Your task to perform on an android device: change the upload size in google photos Image 0: 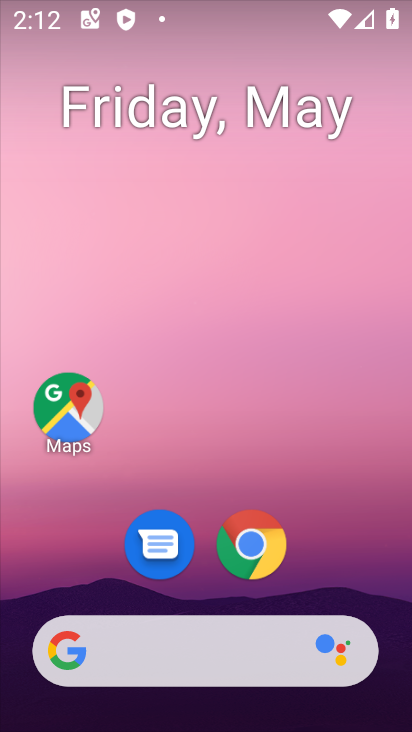
Step 0: drag from (209, 578) to (236, 198)
Your task to perform on an android device: change the upload size in google photos Image 1: 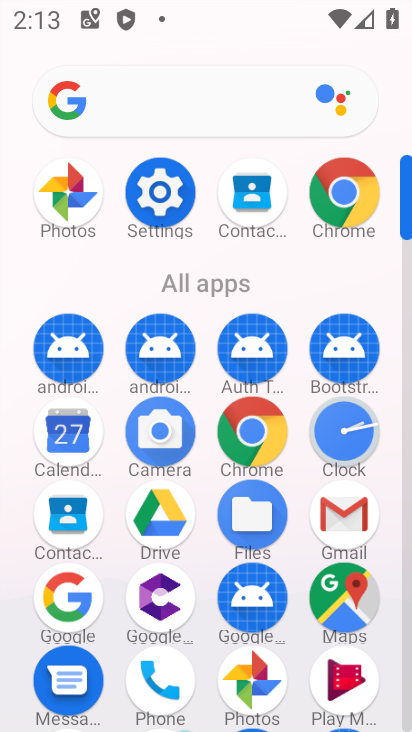
Step 1: click (81, 210)
Your task to perform on an android device: change the upload size in google photos Image 2: 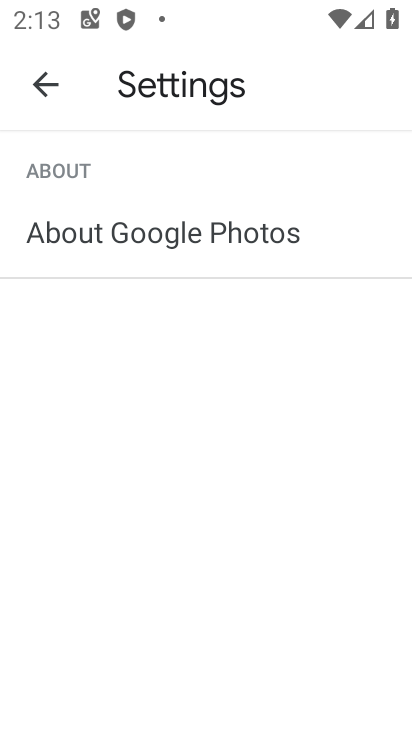
Step 2: click (22, 75)
Your task to perform on an android device: change the upload size in google photos Image 3: 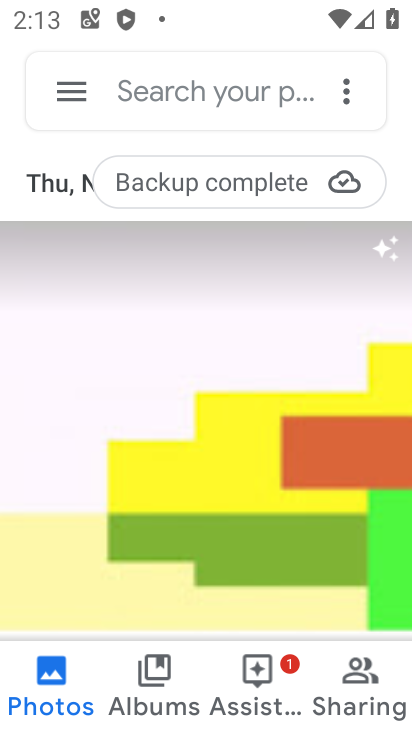
Step 3: click (52, 77)
Your task to perform on an android device: change the upload size in google photos Image 4: 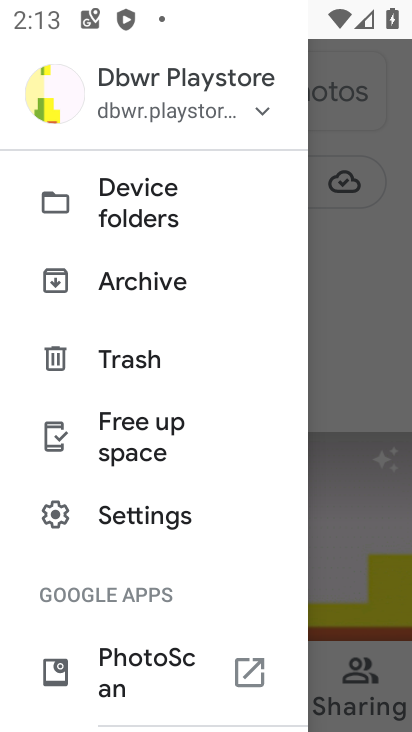
Step 4: drag from (132, 531) to (176, 243)
Your task to perform on an android device: change the upload size in google photos Image 5: 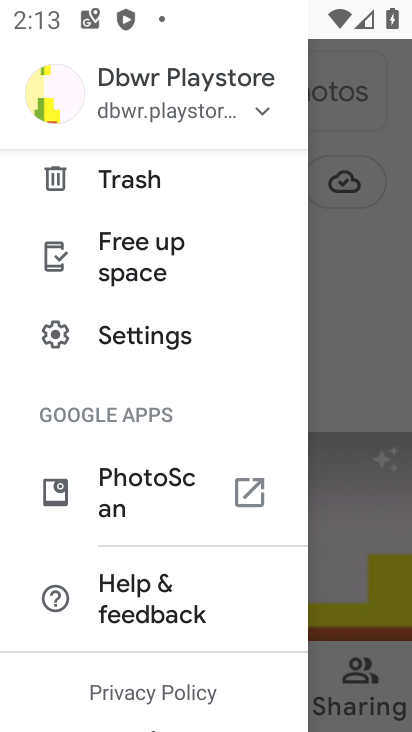
Step 5: click (159, 342)
Your task to perform on an android device: change the upload size in google photos Image 6: 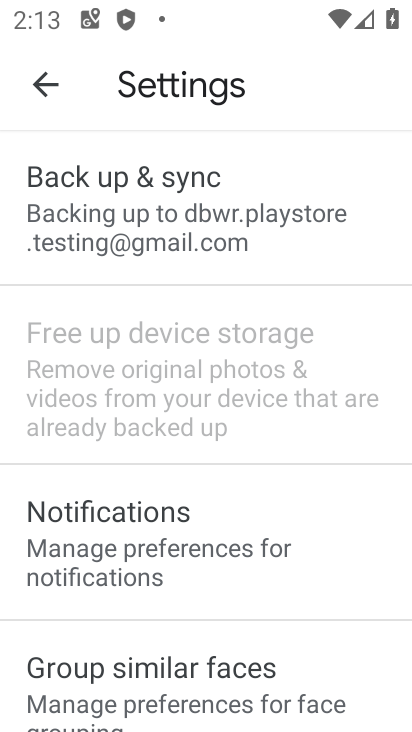
Step 6: drag from (204, 593) to (228, 305)
Your task to perform on an android device: change the upload size in google photos Image 7: 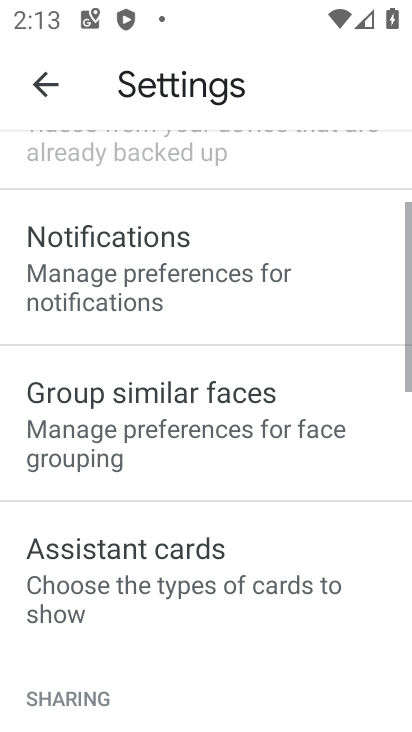
Step 7: drag from (220, 624) to (257, 274)
Your task to perform on an android device: change the upload size in google photos Image 8: 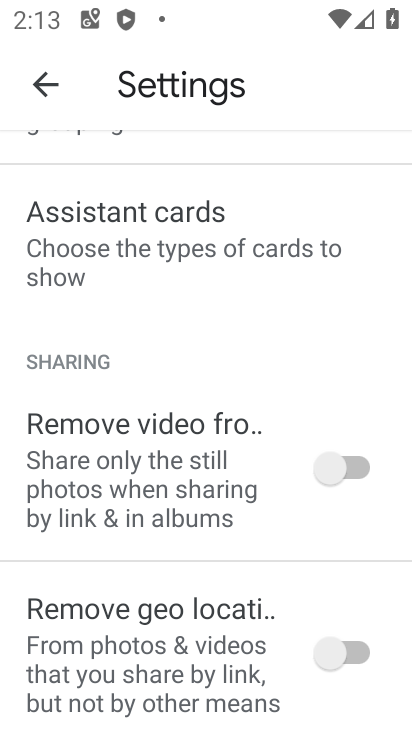
Step 8: drag from (213, 544) to (230, 235)
Your task to perform on an android device: change the upload size in google photos Image 9: 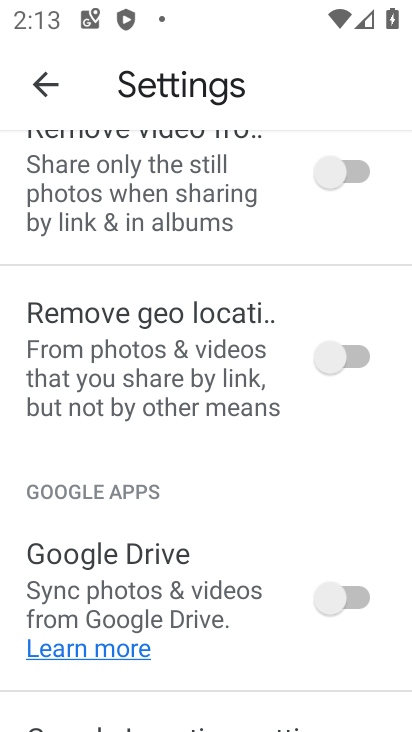
Step 9: drag from (180, 624) to (235, 255)
Your task to perform on an android device: change the upload size in google photos Image 10: 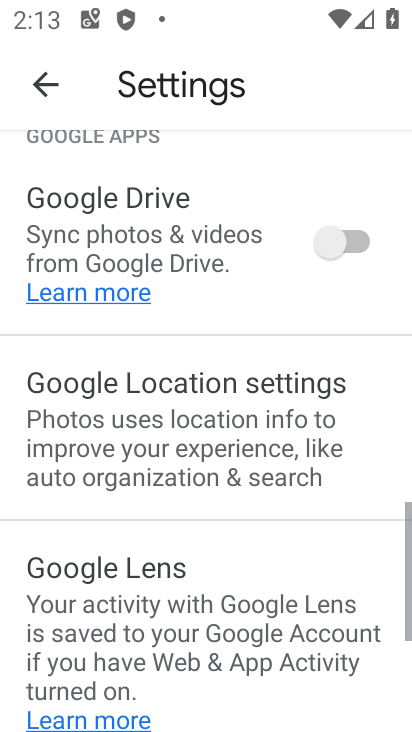
Step 10: drag from (184, 599) to (225, 203)
Your task to perform on an android device: change the upload size in google photos Image 11: 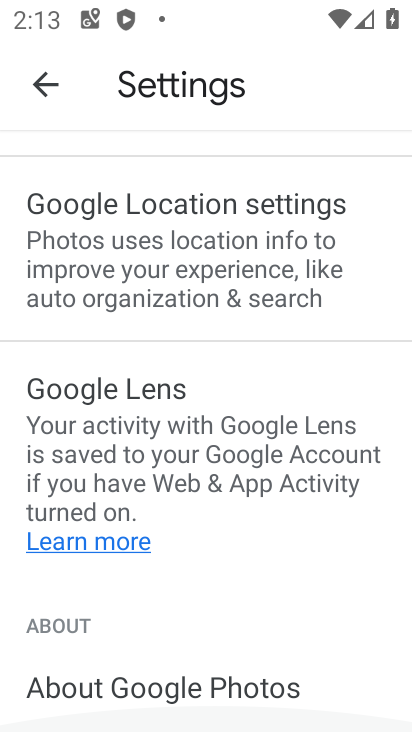
Step 11: drag from (218, 254) to (235, 624)
Your task to perform on an android device: change the upload size in google photos Image 12: 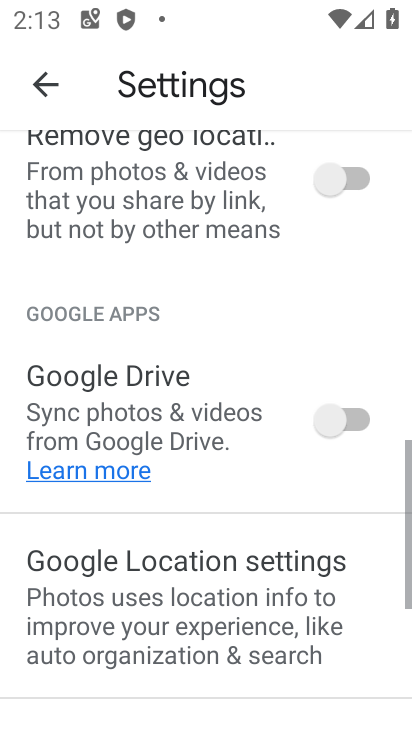
Step 12: drag from (238, 146) to (238, 427)
Your task to perform on an android device: change the upload size in google photos Image 13: 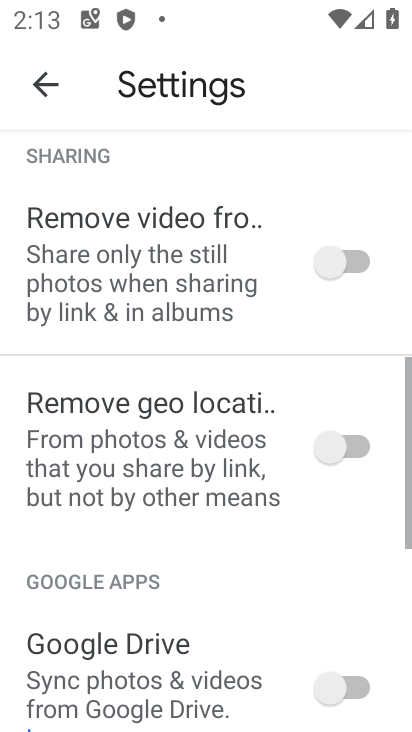
Step 13: drag from (240, 197) to (243, 505)
Your task to perform on an android device: change the upload size in google photos Image 14: 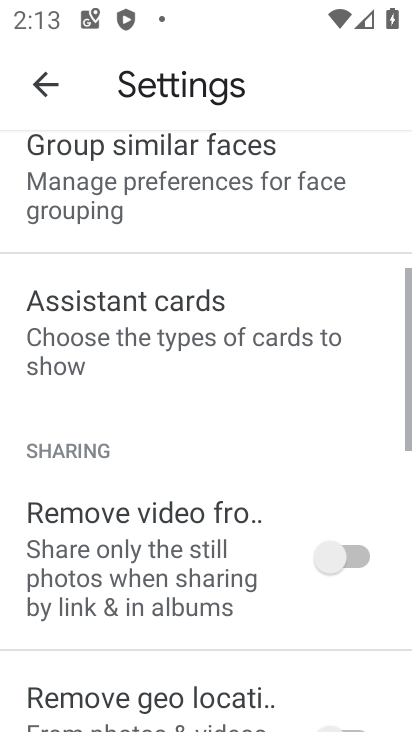
Step 14: drag from (244, 281) to (244, 550)
Your task to perform on an android device: change the upload size in google photos Image 15: 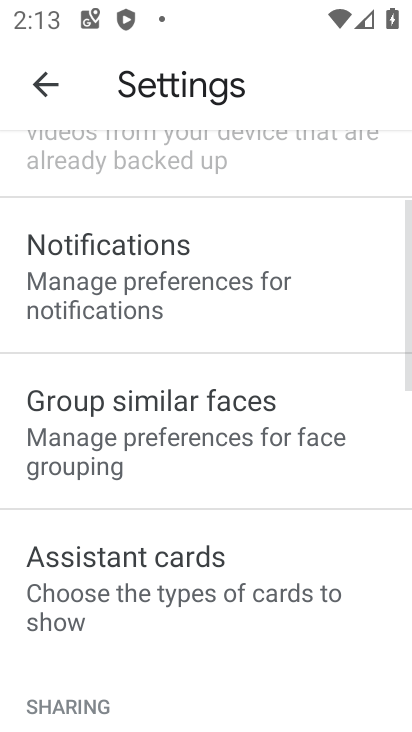
Step 15: drag from (190, 207) to (210, 496)
Your task to perform on an android device: change the upload size in google photos Image 16: 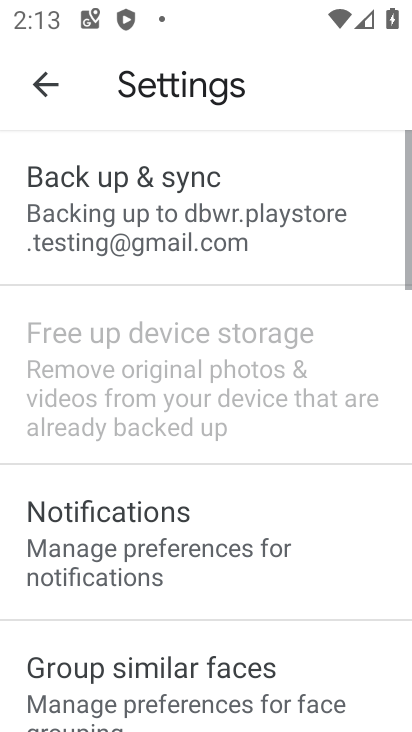
Step 16: drag from (196, 224) to (231, 472)
Your task to perform on an android device: change the upload size in google photos Image 17: 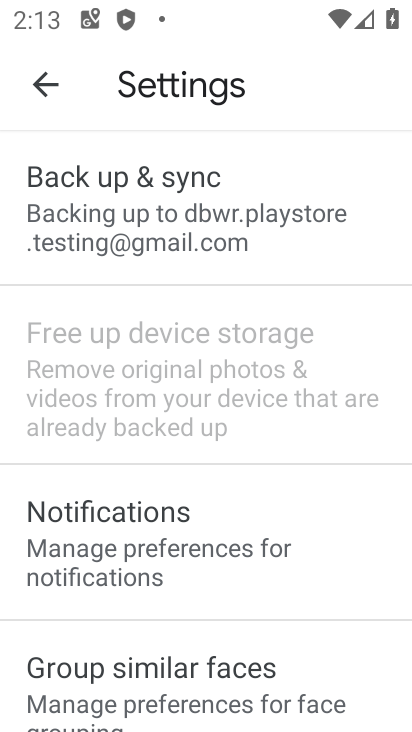
Step 17: click (193, 244)
Your task to perform on an android device: change the upload size in google photos Image 18: 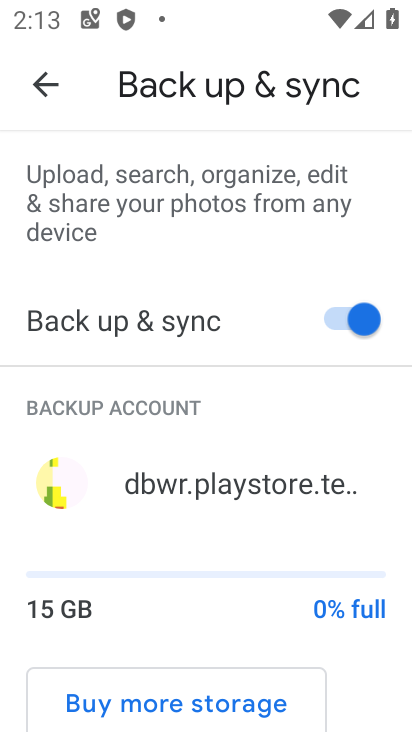
Step 18: drag from (164, 623) to (200, 358)
Your task to perform on an android device: change the upload size in google photos Image 19: 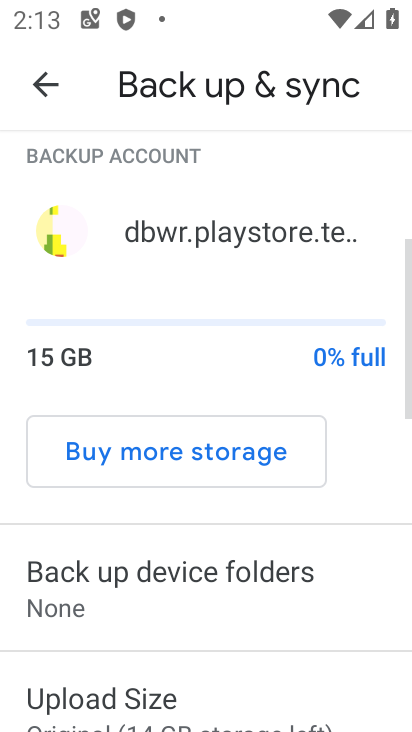
Step 19: drag from (200, 664) to (246, 389)
Your task to perform on an android device: change the upload size in google photos Image 20: 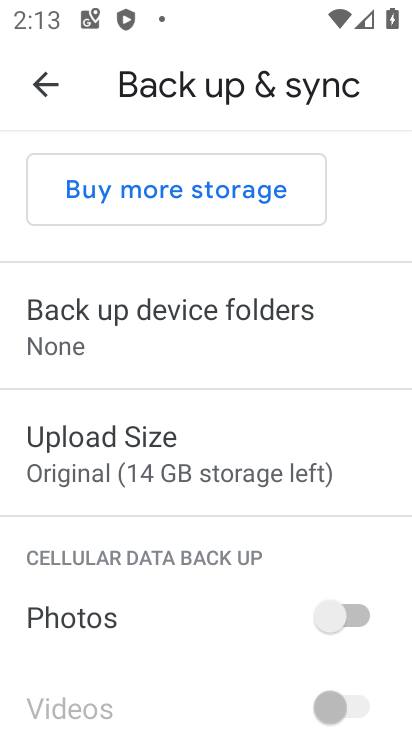
Step 20: click (210, 454)
Your task to perform on an android device: change the upload size in google photos Image 21: 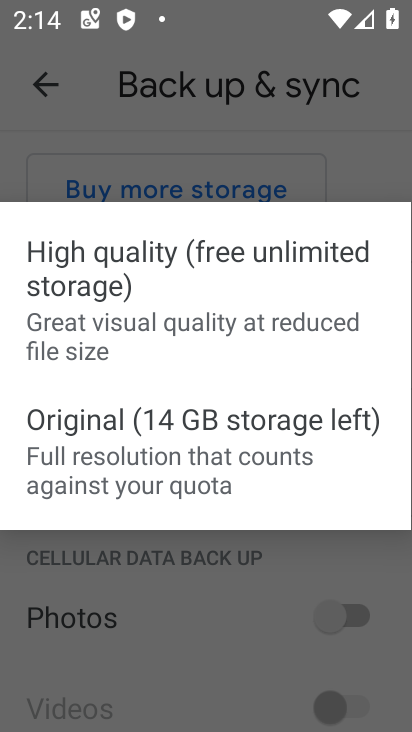
Step 21: click (118, 319)
Your task to perform on an android device: change the upload size in google photos Image 22: 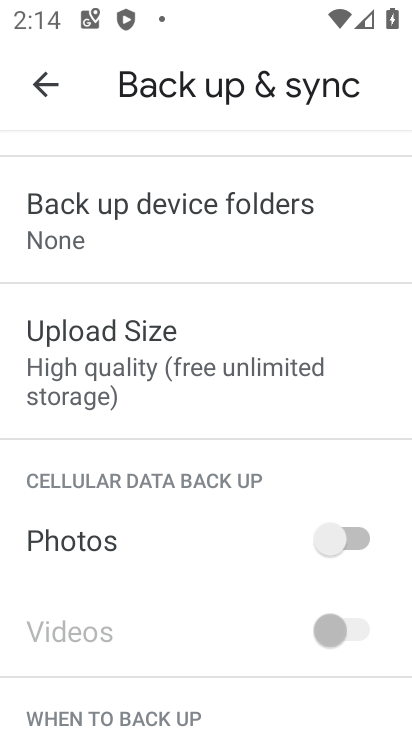
Step 22: task complete